Your task to perform on an android device: turn off airplane mode Image 0: 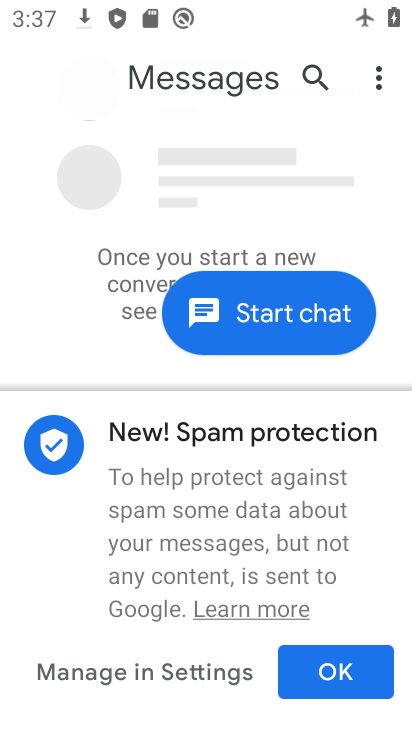
Step 0: drag from (368, 7) to (343, 468)
Your task to perform on an android device: turn off airplane mode Image 1: 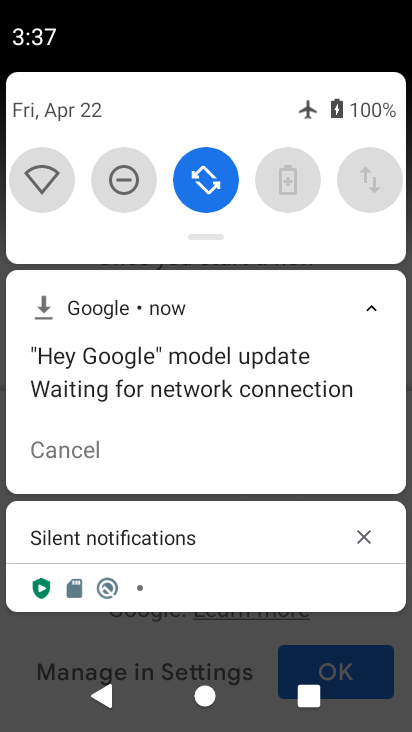
Step 1: drag from (223, 251) to (284, 705)
Your task to perform on an android device: turn off airplane mode Image 2: 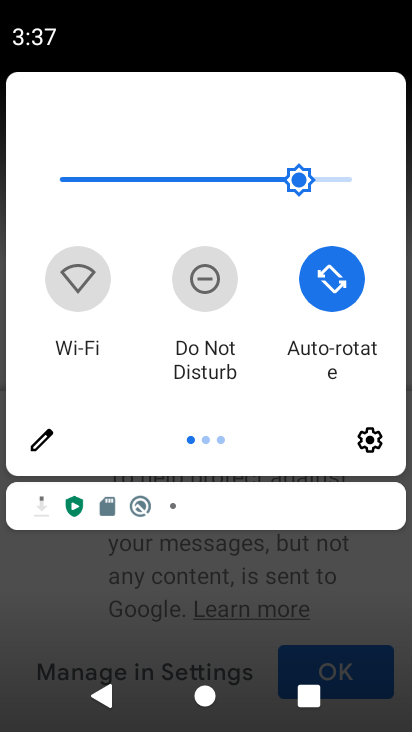
Step 2: drag from (381, 334) to (9, 330)
Your task to perform on an android device: turn off airplane mode Image 3: 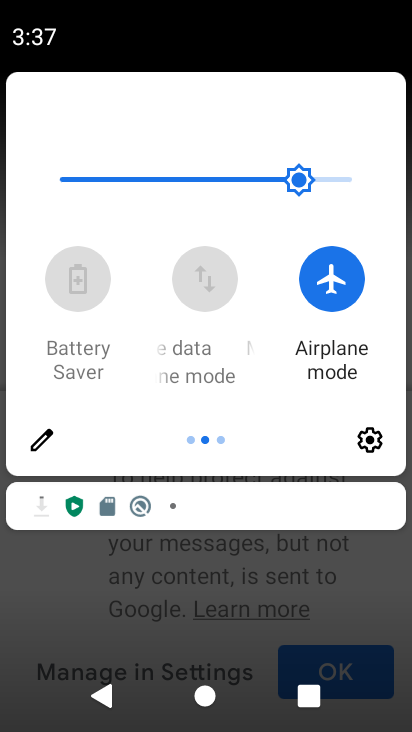
Step 3: click (328, 275)
Your task to perform on an android device: turn off airplane mode Image 4: 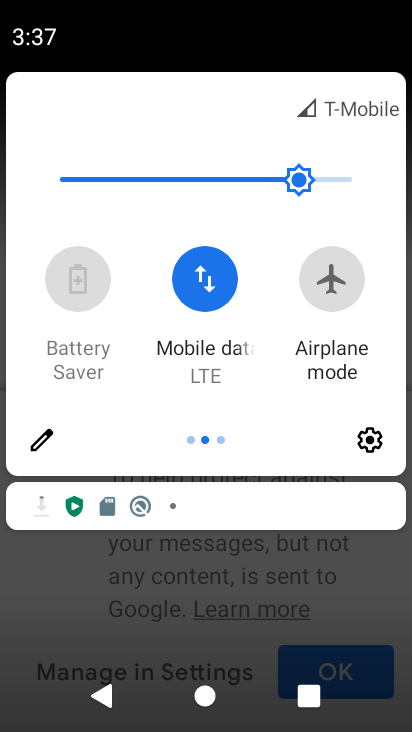
Step 4: task complete